Your task to perform on an android device: Go to wifi settings Image 0: 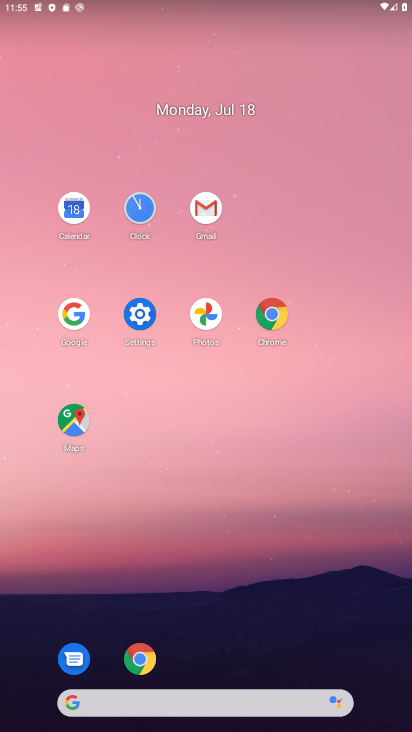
Step 0: click (138, 318)
Your task to perform on an android device: Go to wifi settings Image 1: 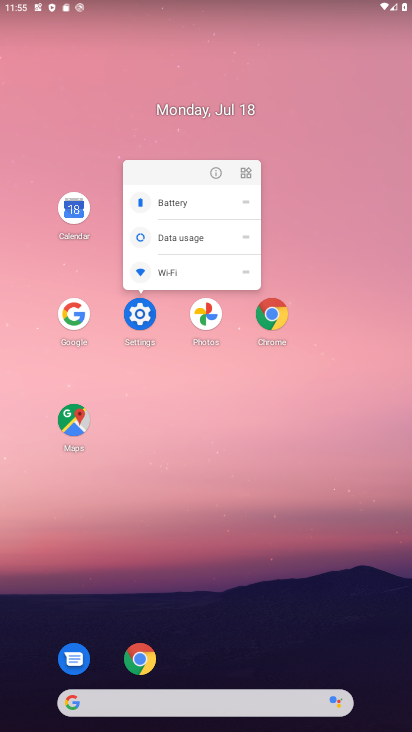
Step 1: click (138, 309)
Your task to perform on an android device: Go to wifi settings Image 2: 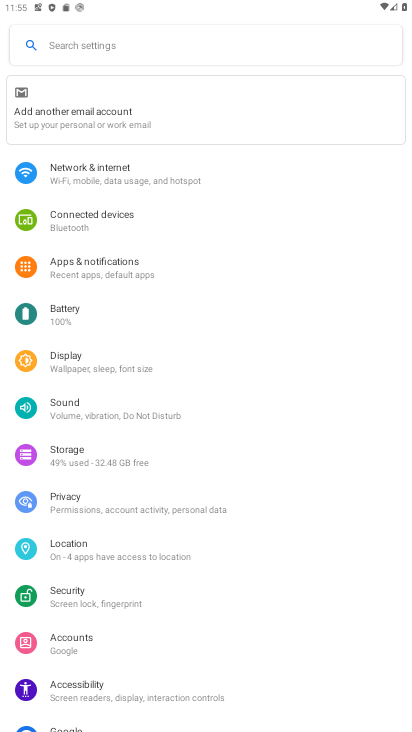
Step 2: click (151, 189)
Your task to perform on an android device: Go to wifi settings Image 3: 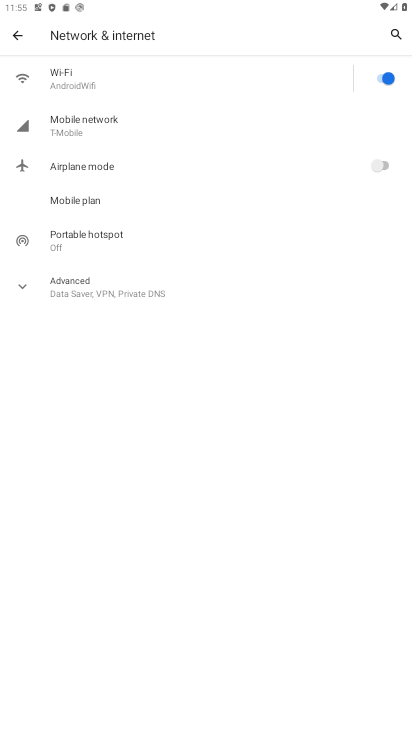
Step 3: click (197, 75)
Your task to perform on an android device: Go to wifi settings Image 4: 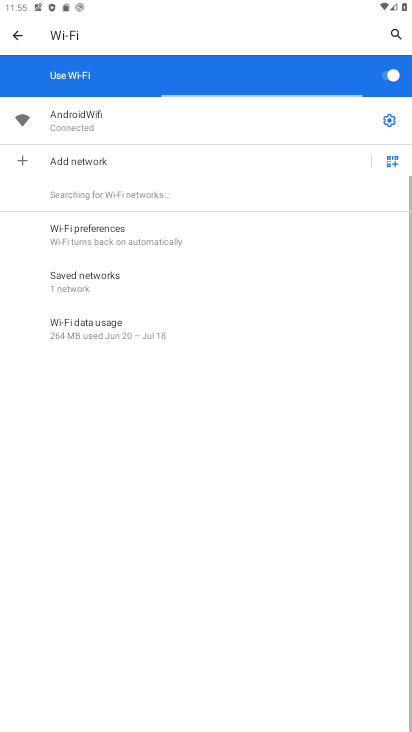
Step 4: click (387, 119)
Your task to perform on an android device: Go to wifi settings Image 5: 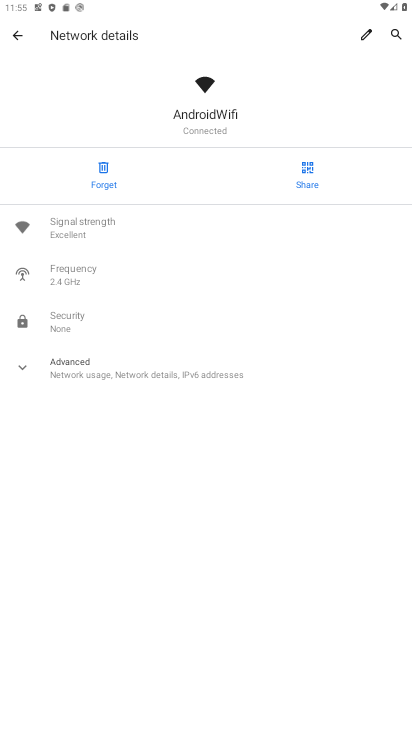
Step 5: task complete